Your task to perform on an android device: manage bookmarks in the chrome app Image 0: 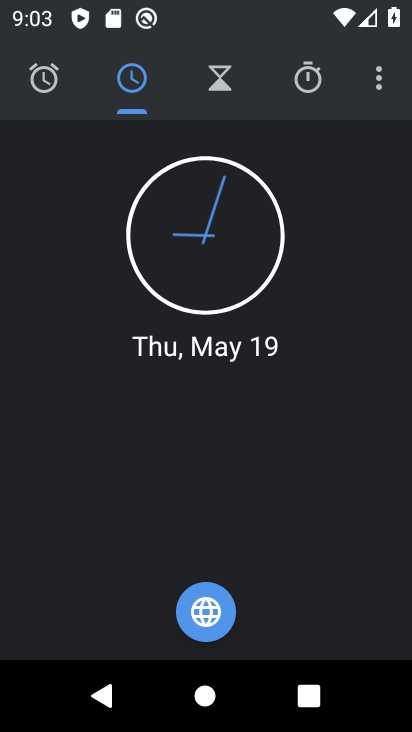
Step 0: press back button
Your task to perform on an android device: manage bookmarks in the chrome app Image 1: 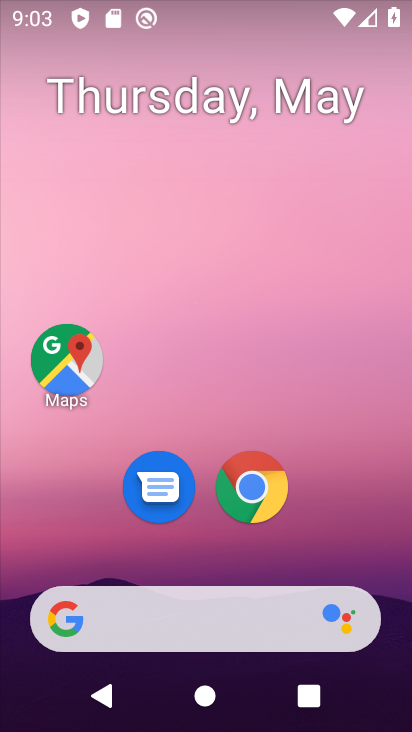
Step 1: click (279, 492)
Your task to perform on an android device: manage bookmarks in the chrome app Image 2: 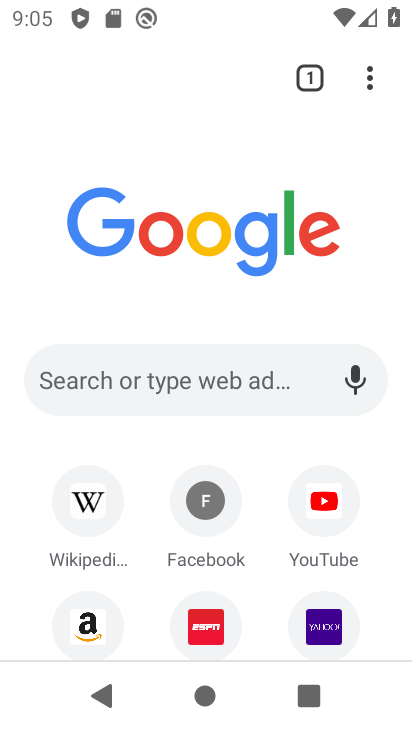
Step 2: task complete